Your task to perform on an android device: open app "Nova Launcher" Image 0: 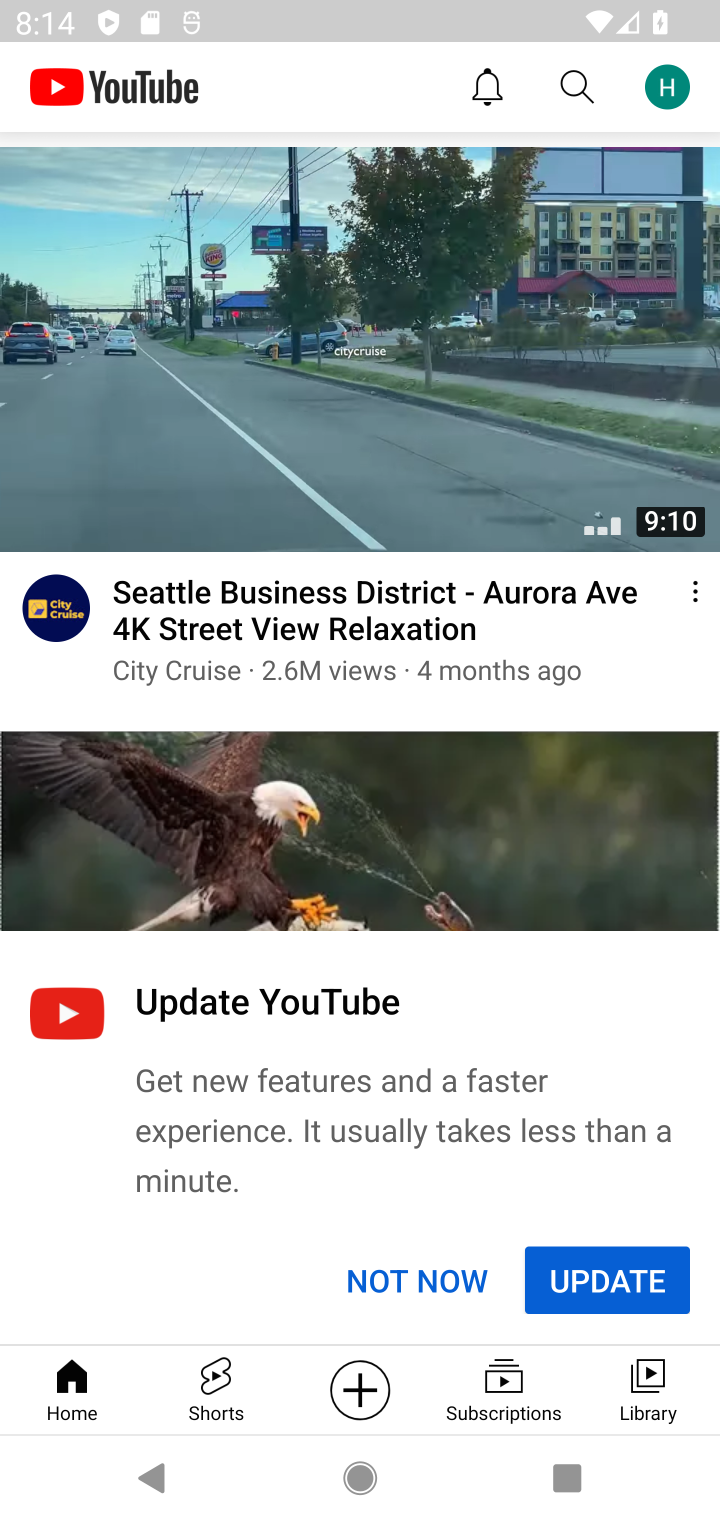
Step 0: press home button
Your task to perform on an android device: open app "Nova Launcher" Image 1: 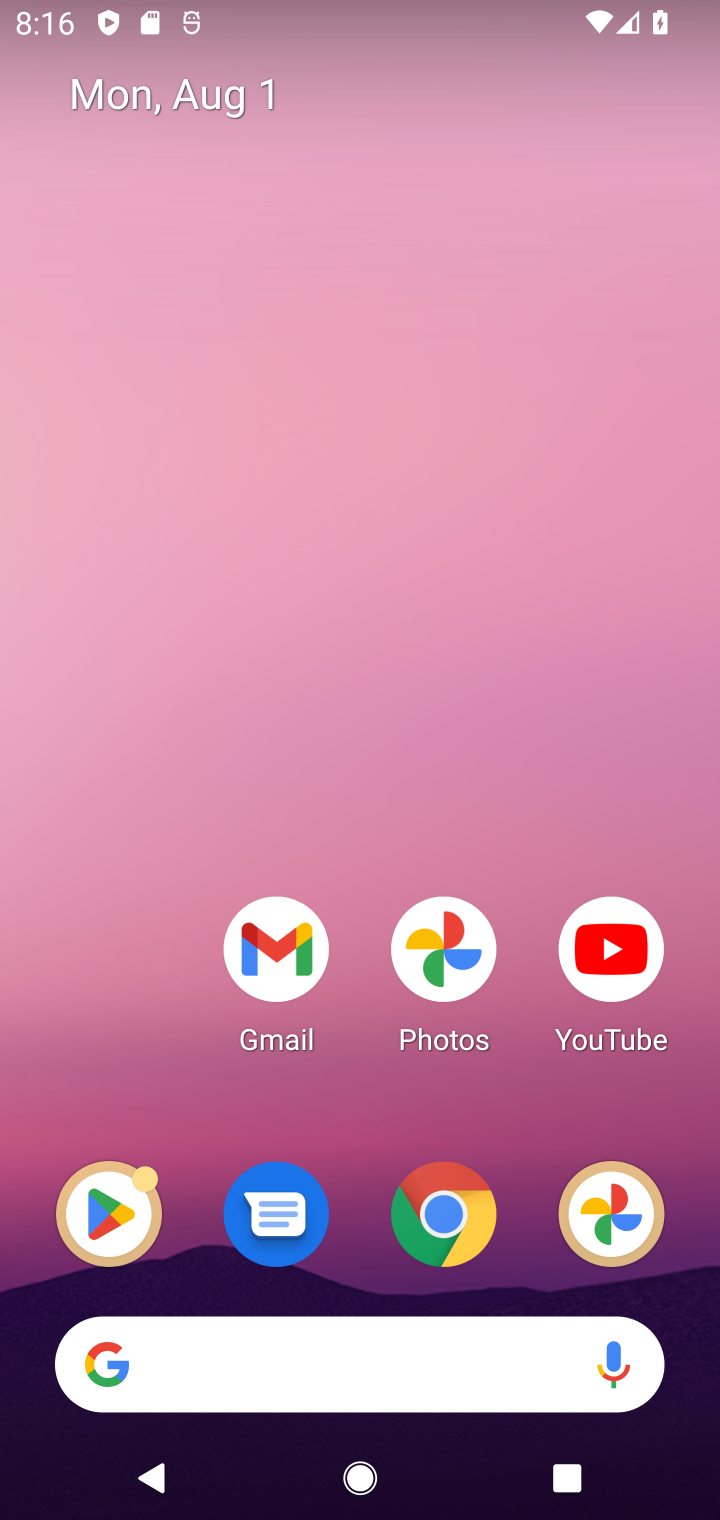
Step 1: click (109, 1233)
Your task to perform on an android device: open app "Nova Launcher" Image 2: 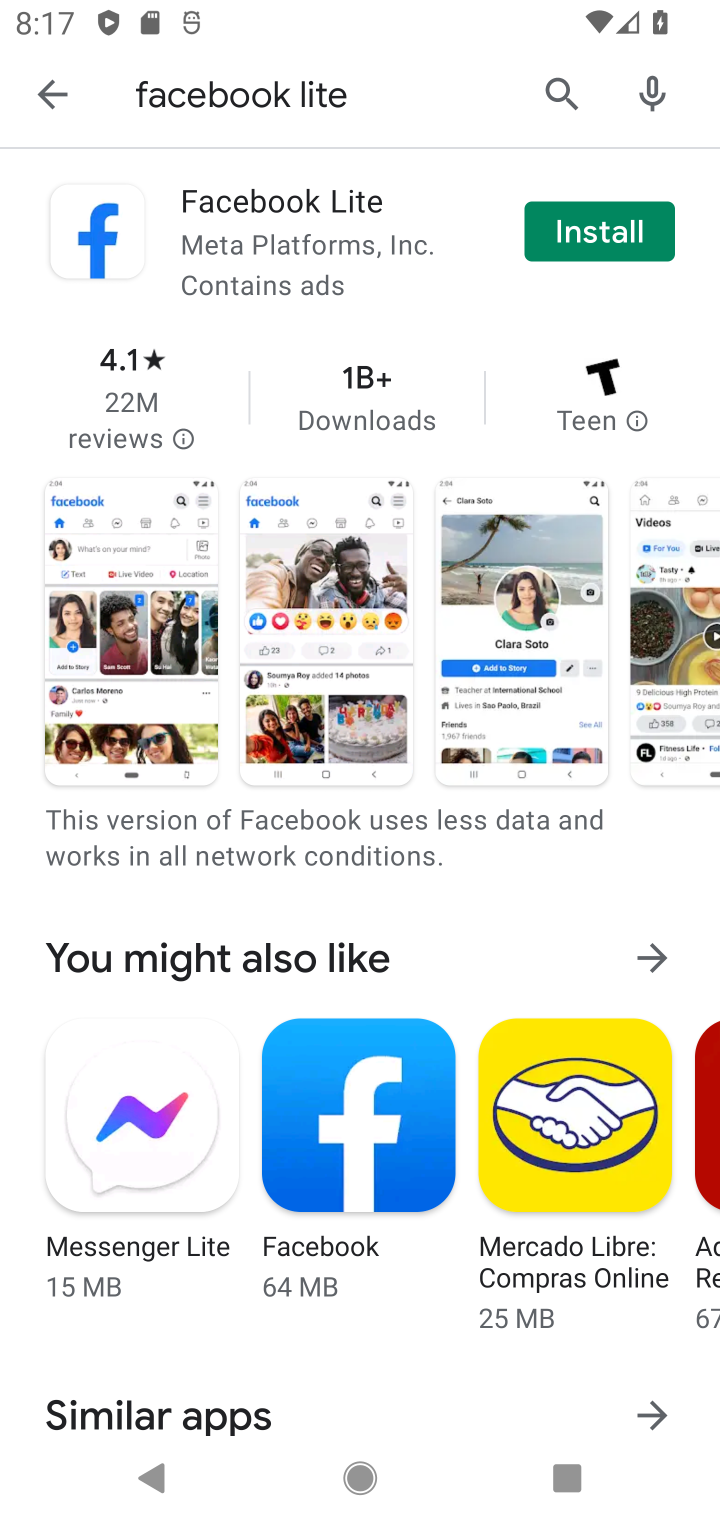
Step 2: click (576, 96)
Your task to perform on an android device: open app "Nova Launcher" Image 3: 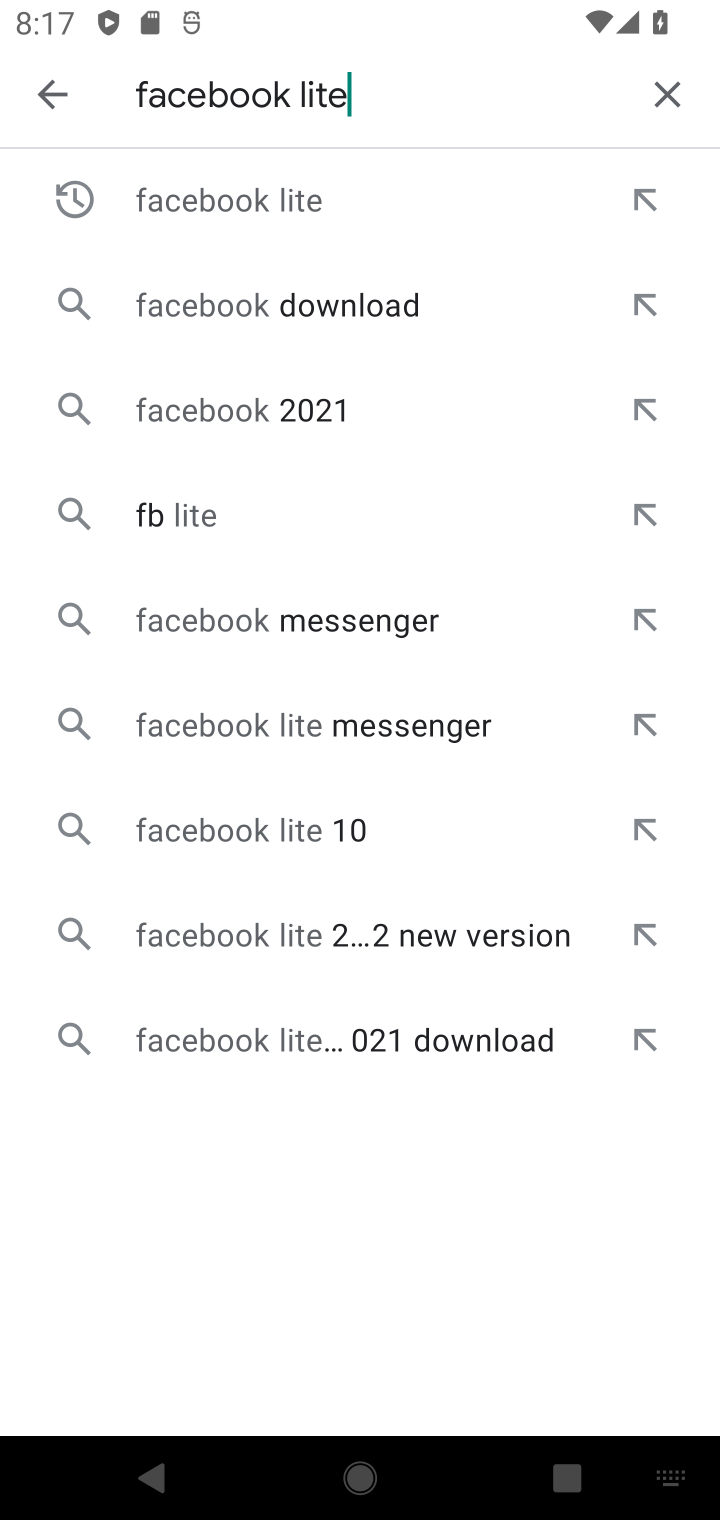
Step 3: click (663, 103)
Your task to perform on an android device: open app "Nova Launcher" Image 4: 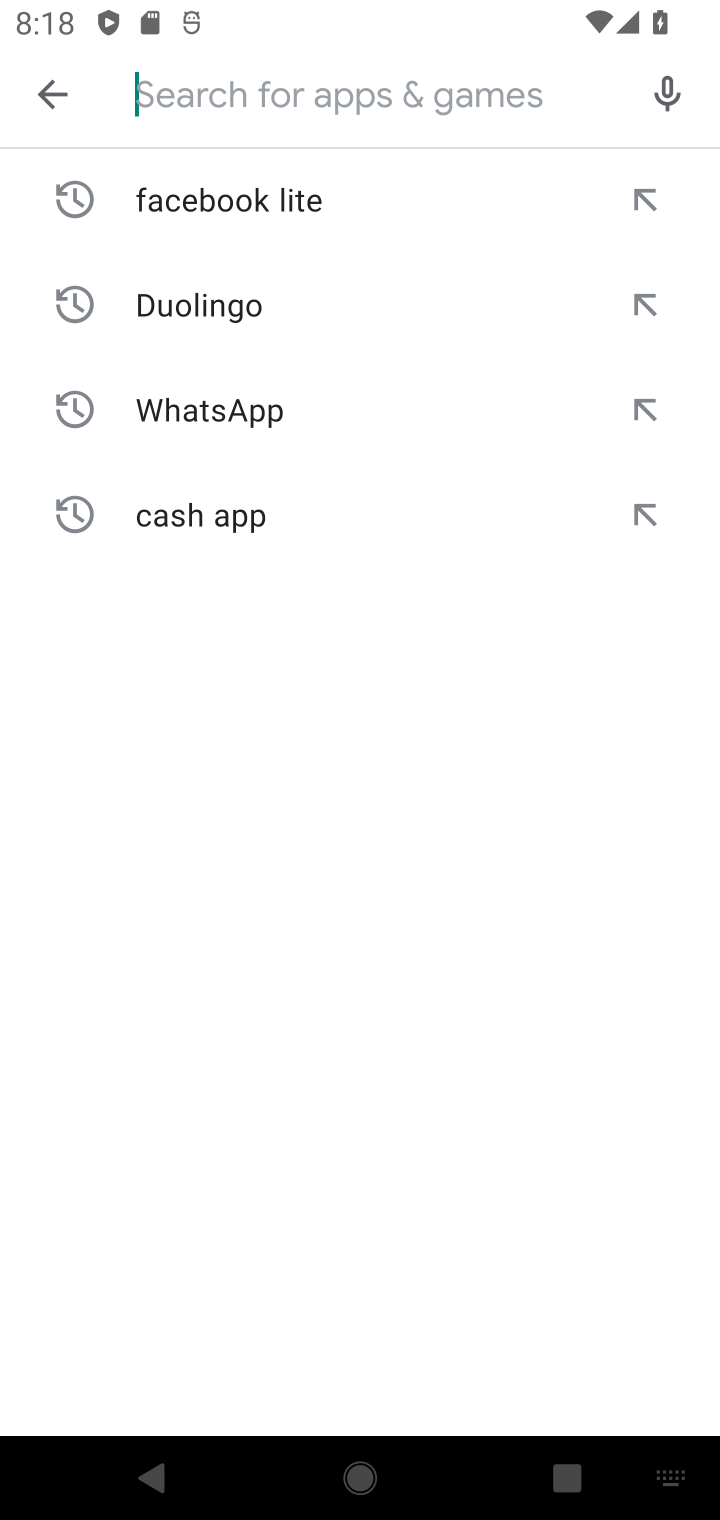
Step 4: type "nova Launcher""
Your task to perform on an android device: open app "Nova Launcher" Image 5: 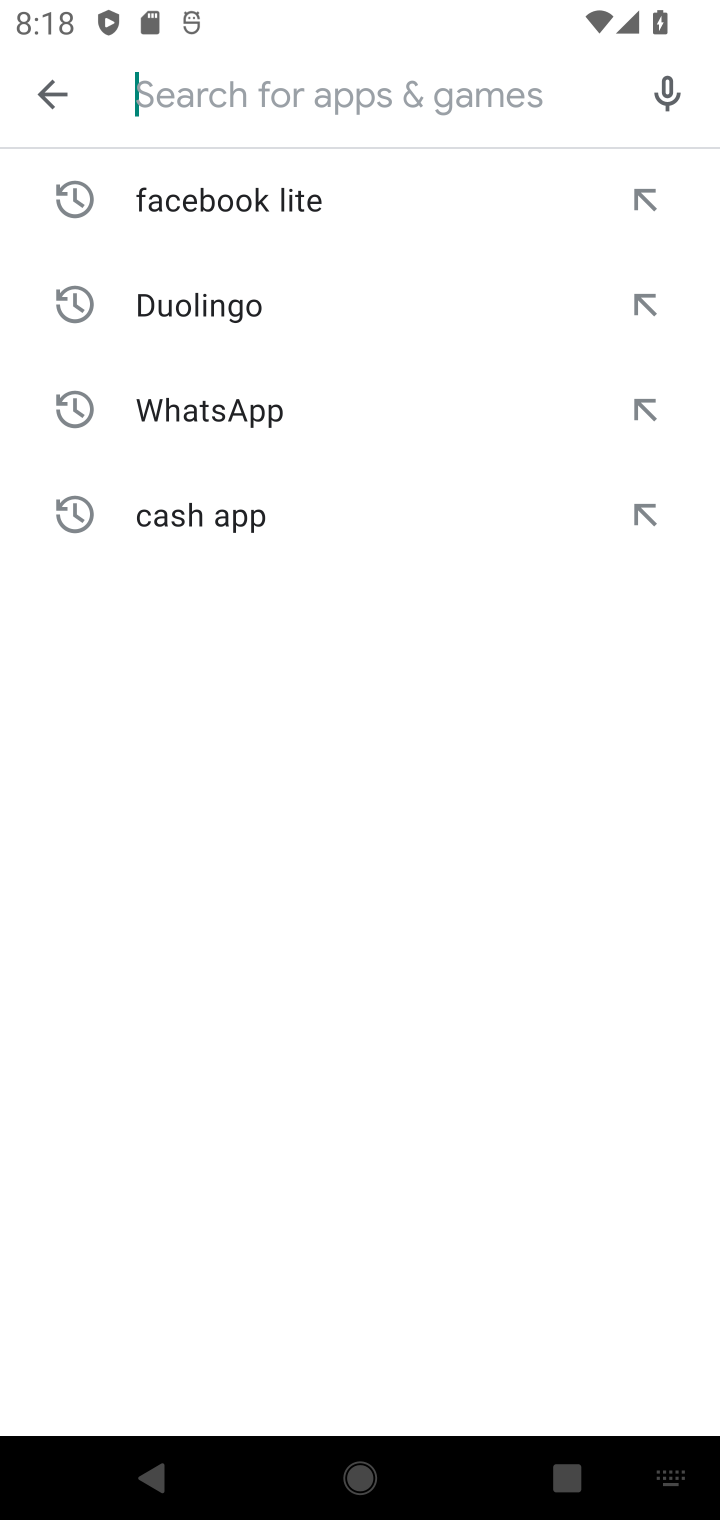
Step 5: press enter
Your task to perform on an android device: open app "Nova Launcher" Image 6: 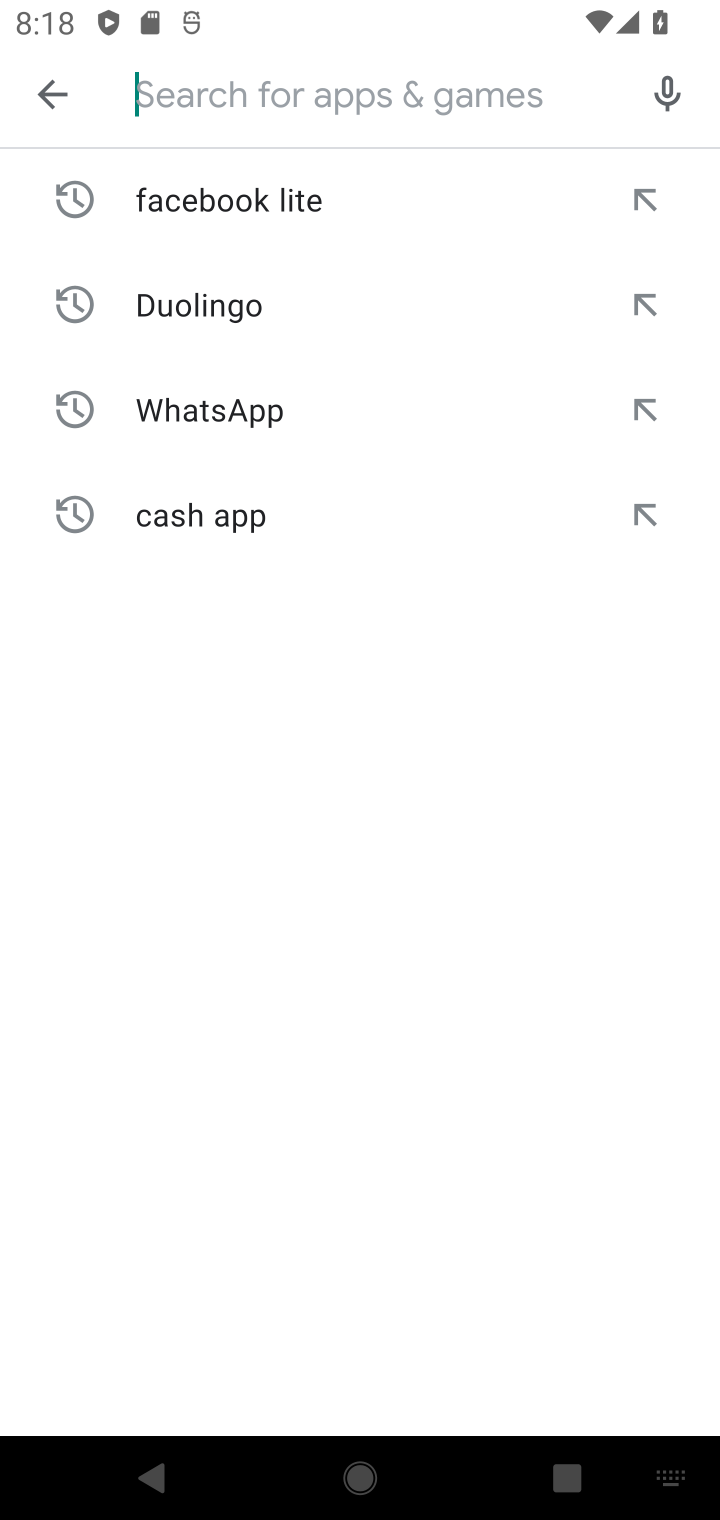
Step 6: type "nova Launcher""
Your task to perform on an android device: open app "Nova Launcher" Image 7: 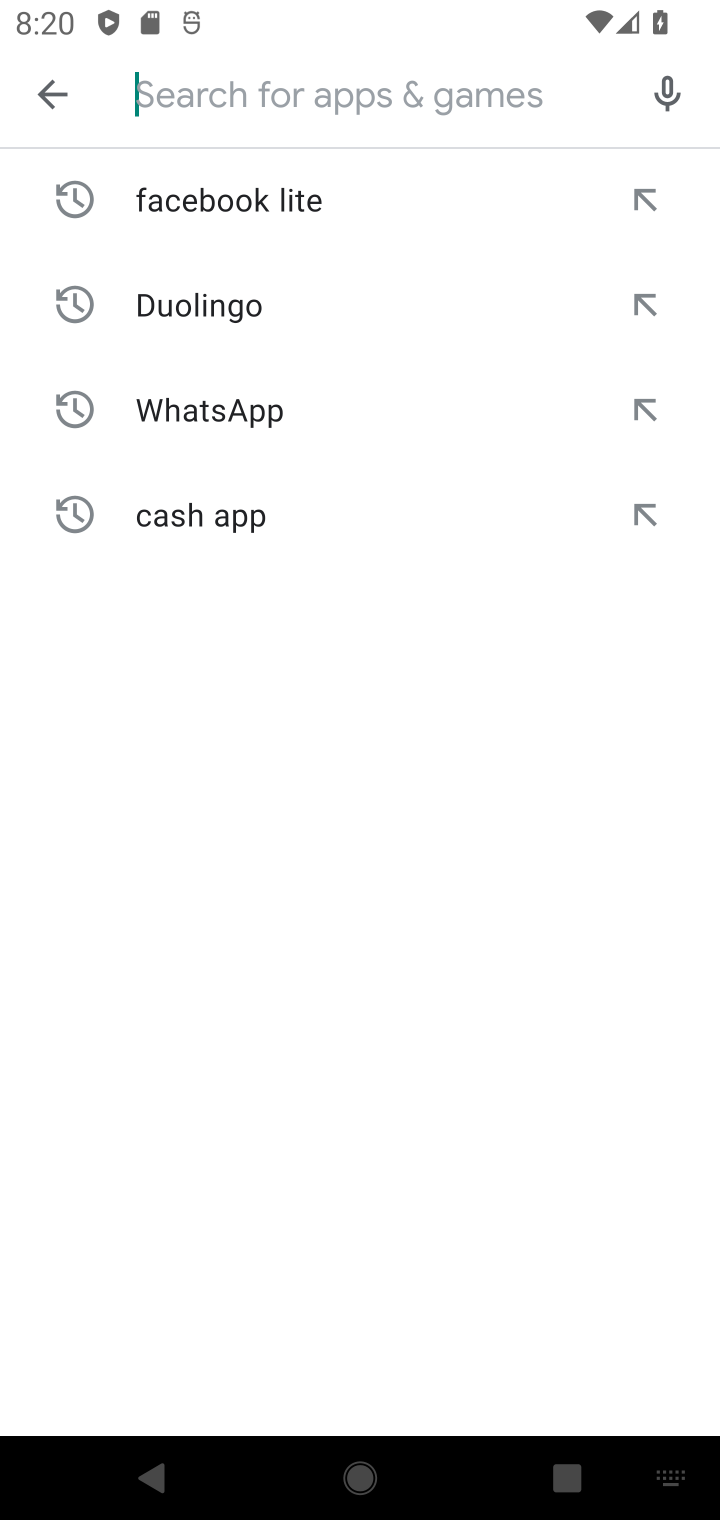
Step 7: type "ova Launcher""
Your task to perform on an android device: open app "Nova Launcher" Image 8: 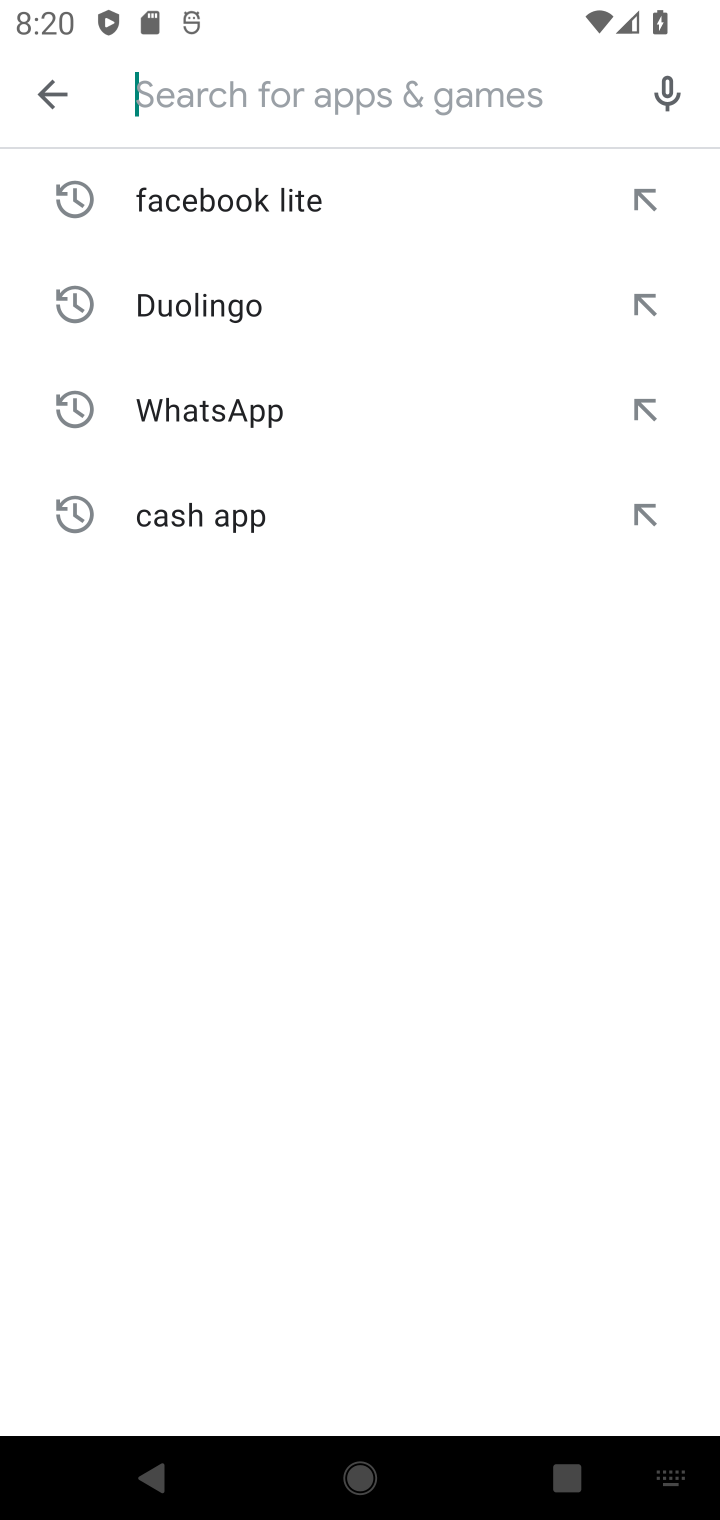
Step 8: type ""
Your task to perform on an android device: open app "Nova Launcher" Image 9: 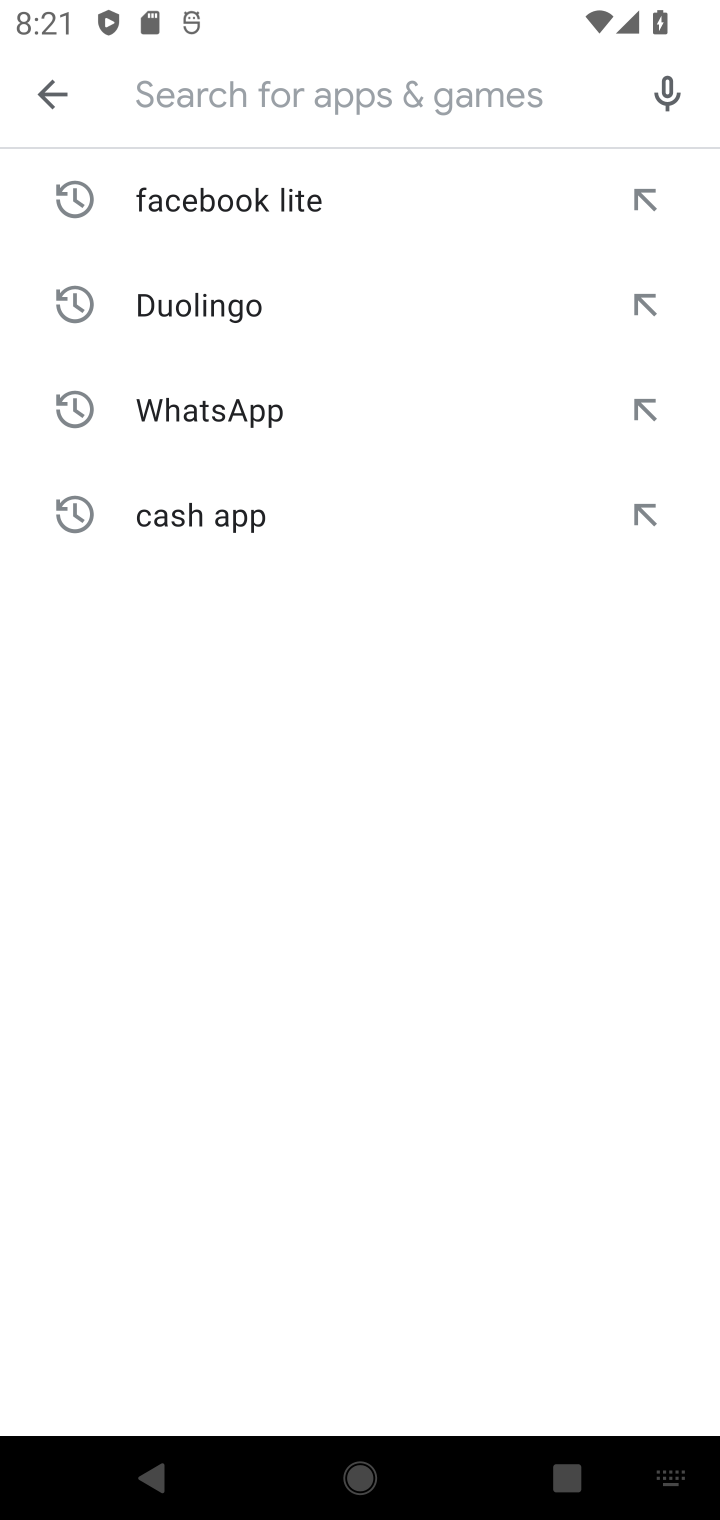
Step 9: type "nova Launcher""
Your task to perform on an android device: open app "Nova Launcher" Image 10: 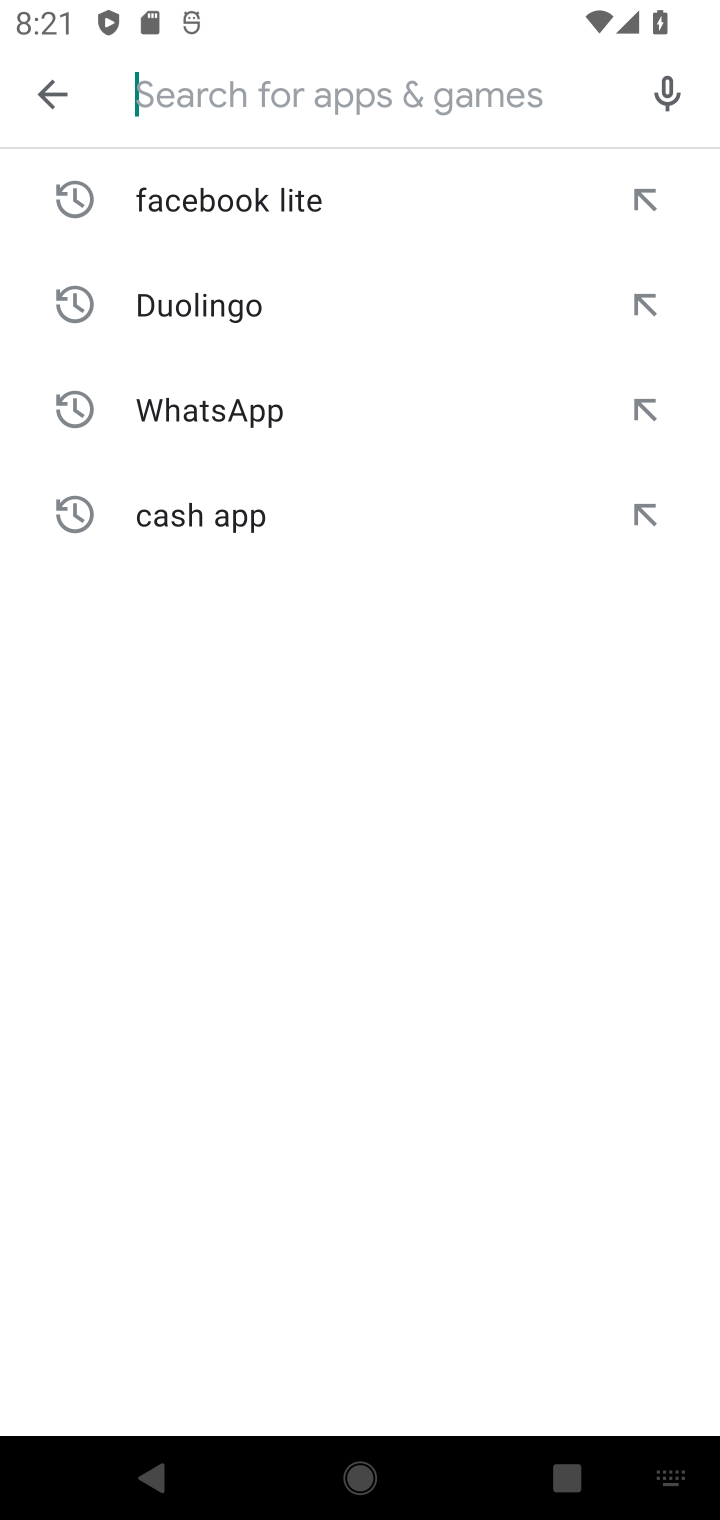
Step 10: type ""
Your task to perform on an android device: open app "Nova Launcher" Image 11: 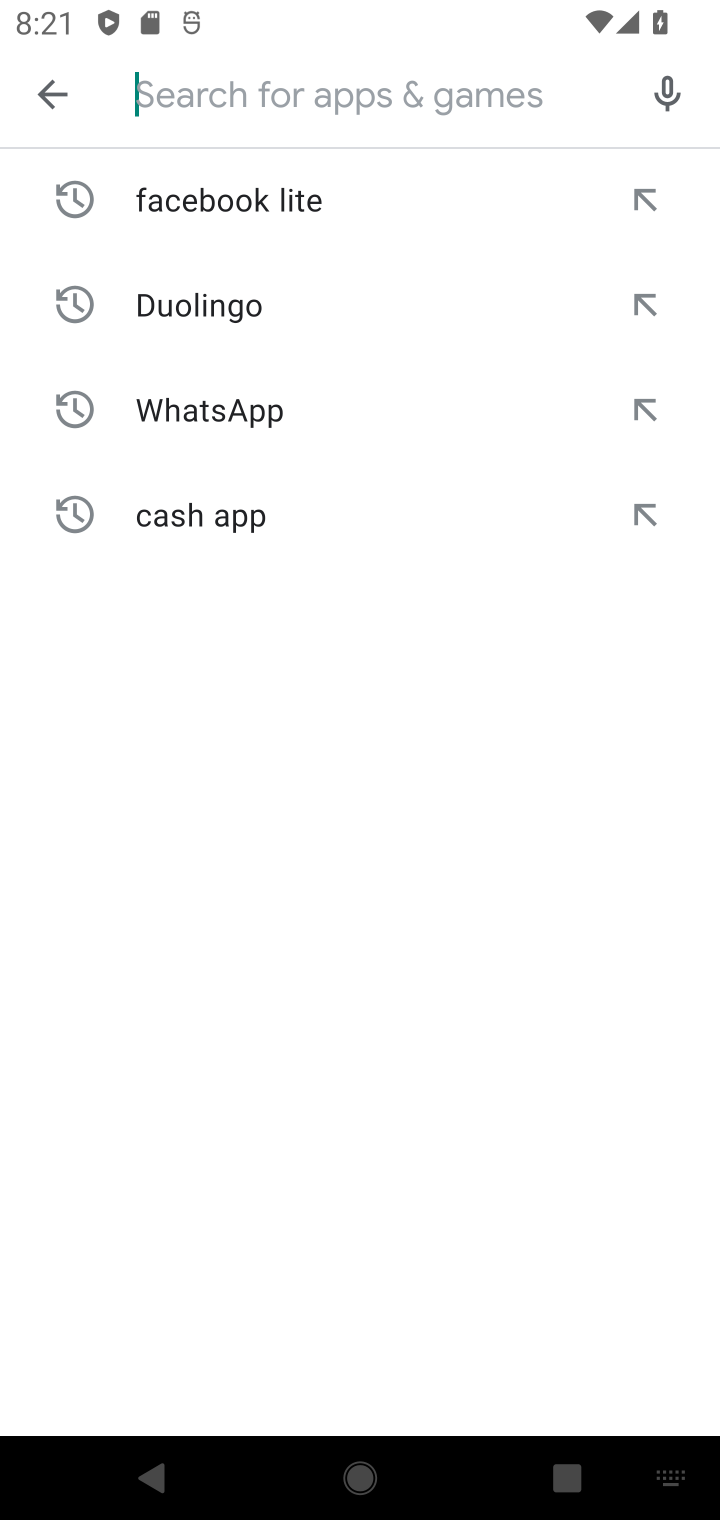
Step 11: type "nova "
Your task to perform on an android device: open app "Nova Launcher" Image 12: 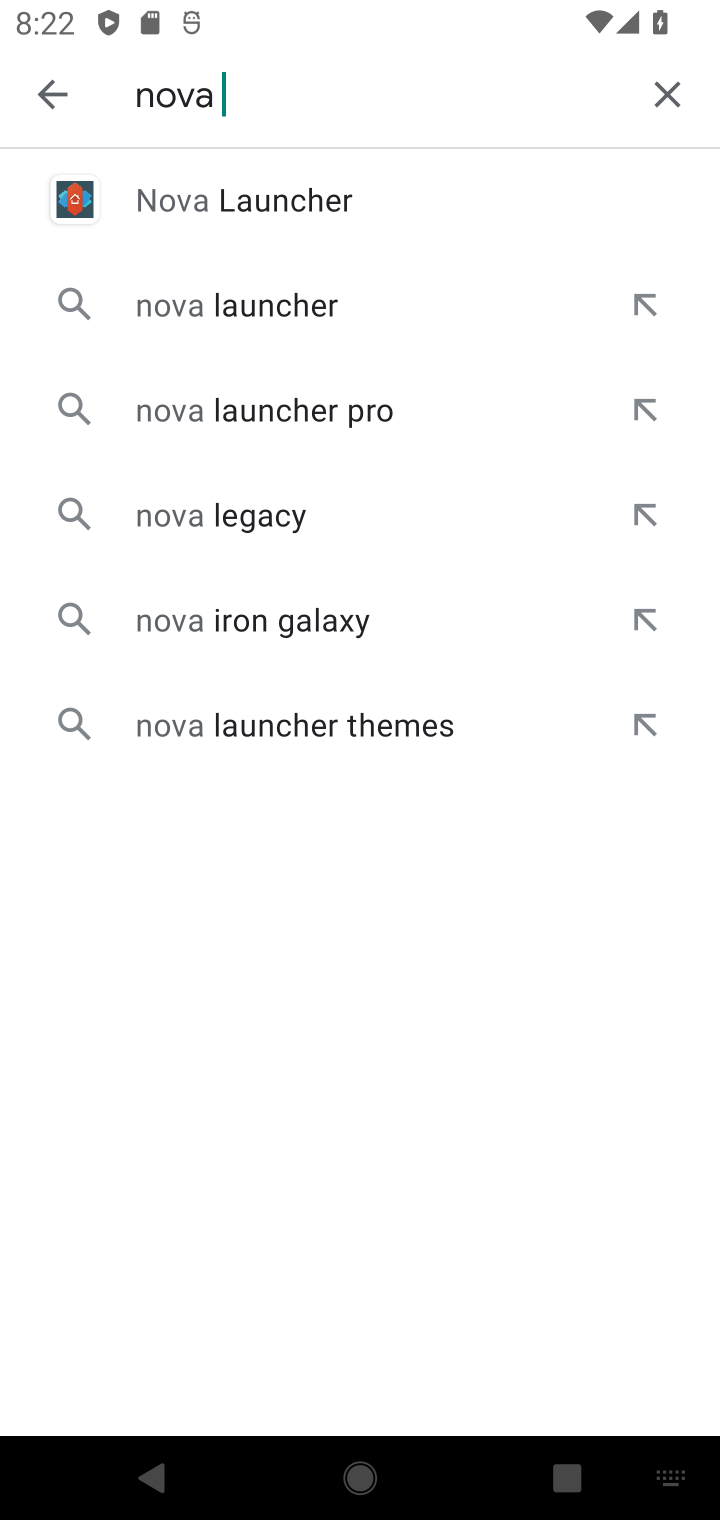
Step 12: click (314, 178)
Your task to perform on an android device: open app "Nova Launcher" Image 13: 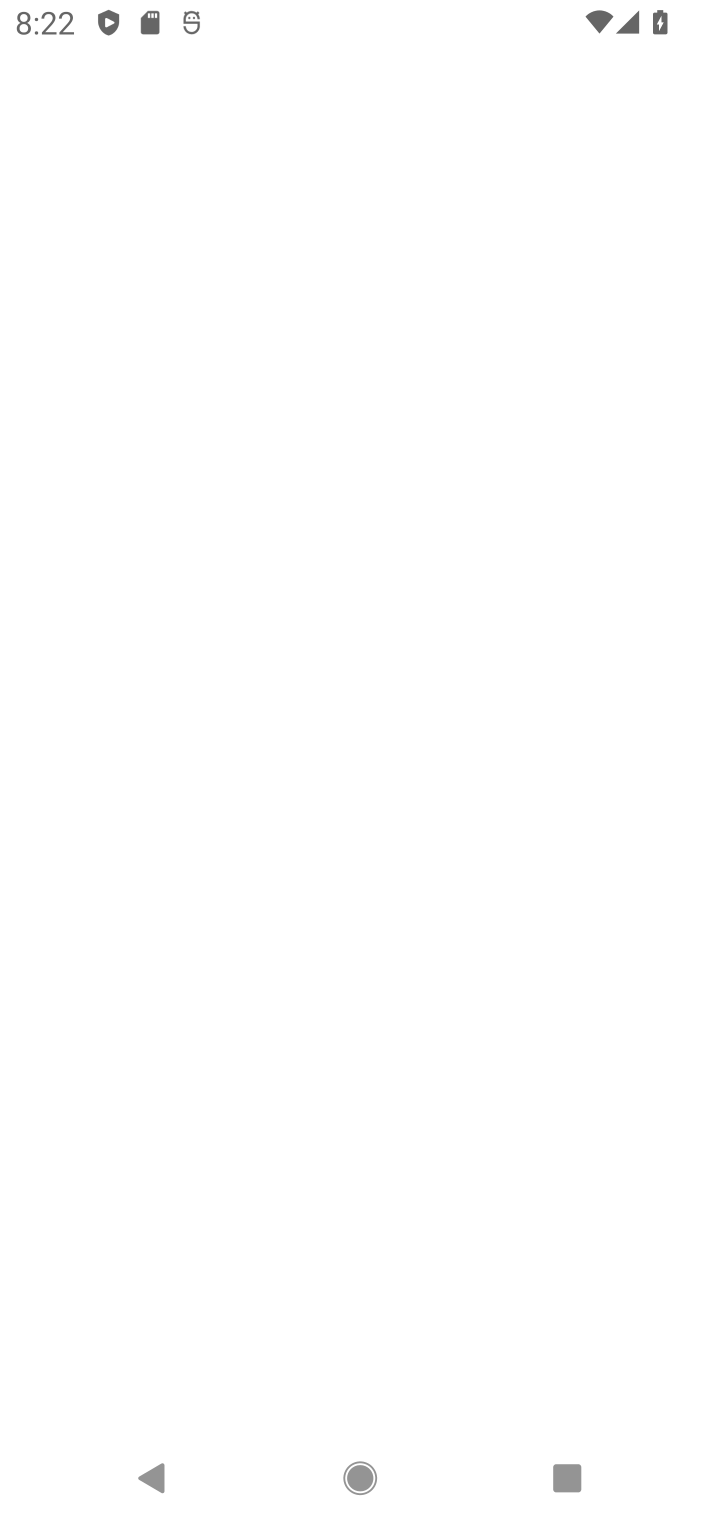
Step 13: click (328, 200)
Your task to perform on an android device: open app "Nova Launcher" Image 14: 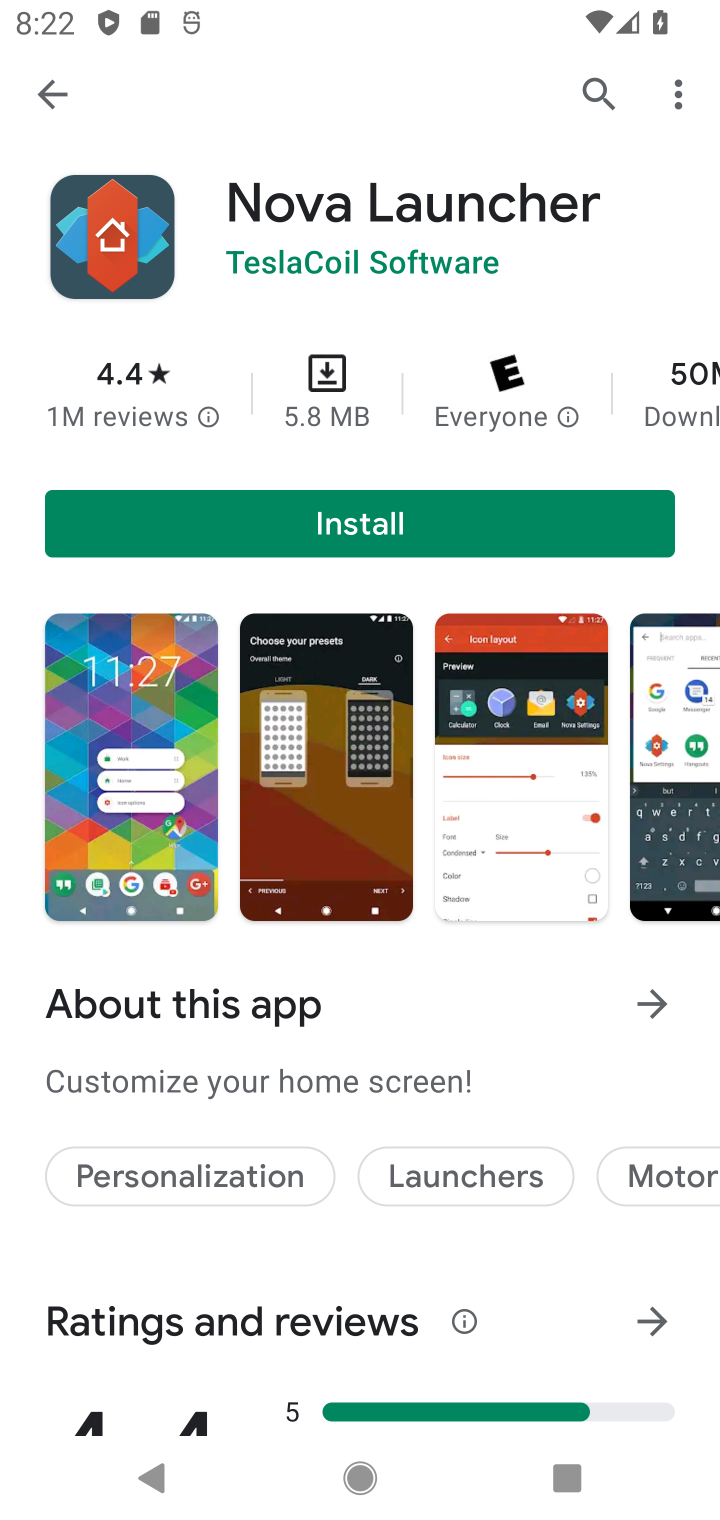
Step 14: task complete